Your task to perform on an android device: Show me popular videos on Youtube Image 0: 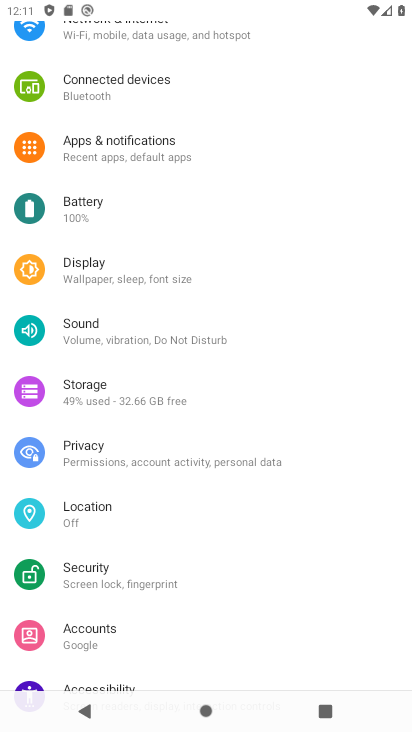
Step 0: press home button
Your task to perform on an android device: Show me popular videos on Youtube Image 1: 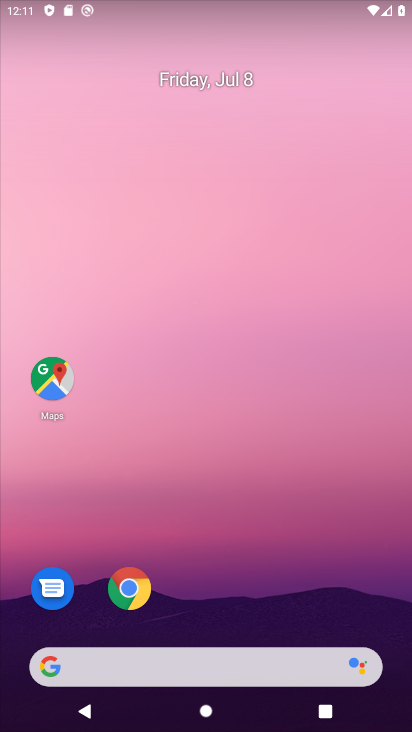
Step 1: drag from (262, 583) to (208, 135)
Your task to perform on an android device: Show me popular videos on Youtube Image 2: 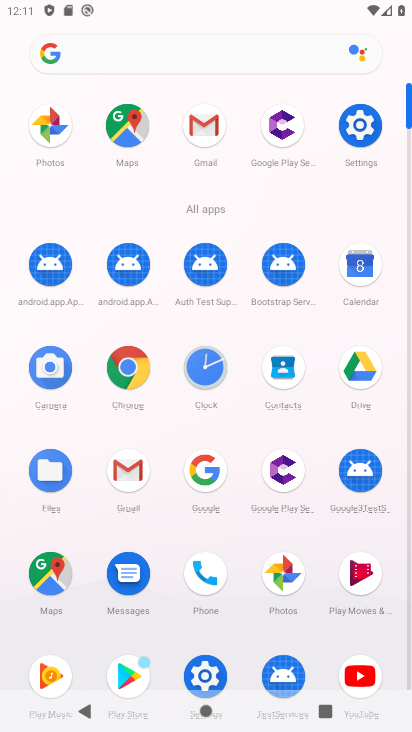
Step 2: click (365, 668)
Your task to perform on an android device: Show me popular videos on Youtube Image 3: 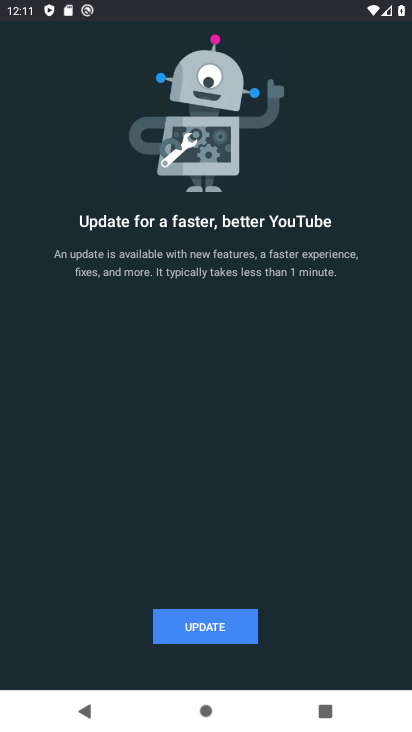
Step 3: click (221, 619)
Your task to perform on an android device: Show me popular videos on Youtube Image 4: 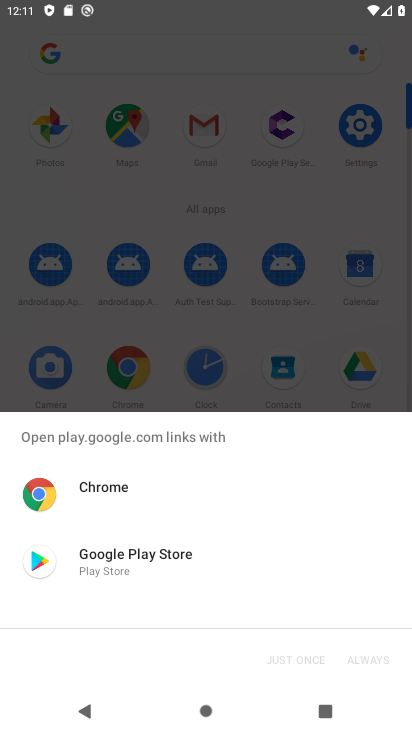
Step 4: click (58, 558)
Your task to perform on an android device: Show me popular videos on Youtube Image 5: 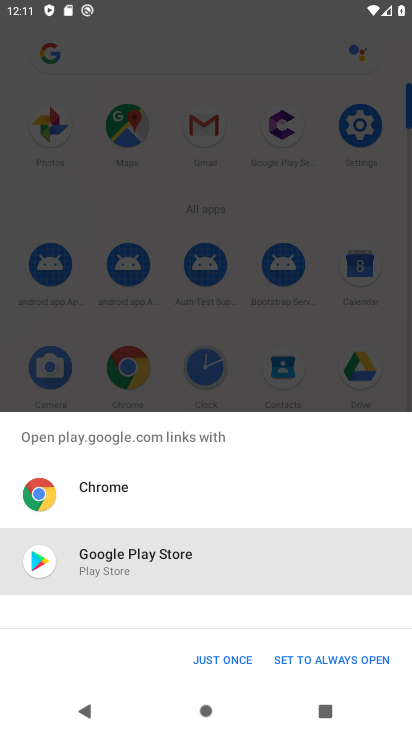
Step 5: click (226, 655)
Your task to perform on an android device: Show me popular videos on Youtube Image 6: 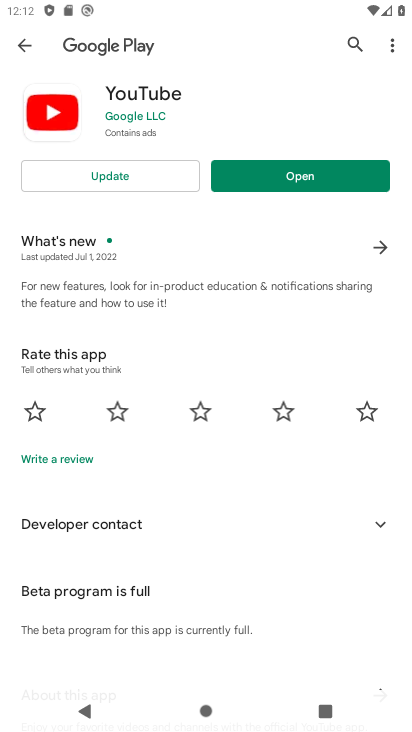
Step 6: click (130, 170)
Your task to perform on an android device: Show me popular videos on Youtube Image 7: 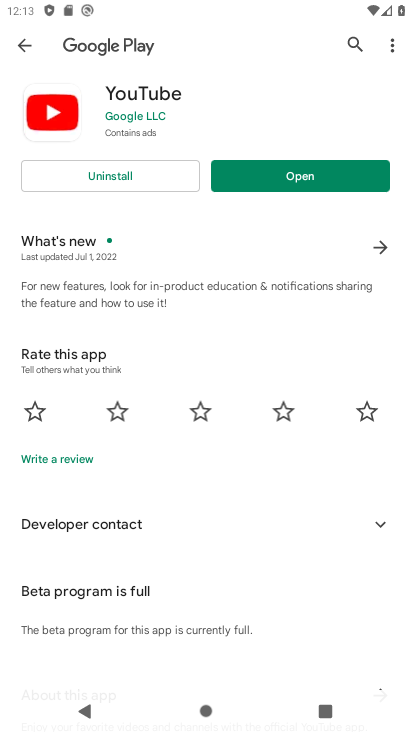
Step 7: click (299, 175)
Your task to perform on an android device: Show me popular videos on Youtube Image 8: 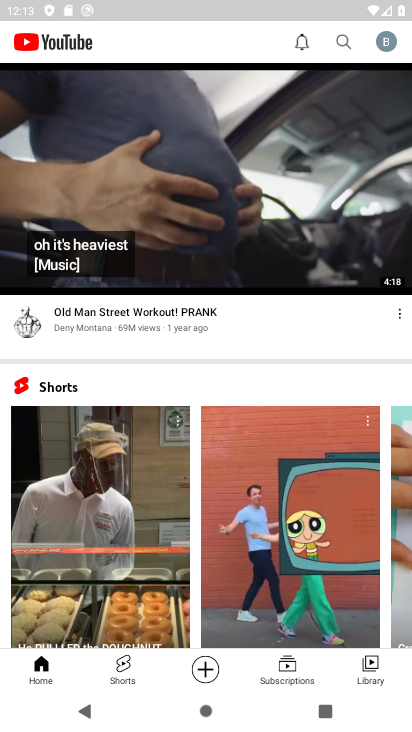
Step 8: drag from (253, 332) to (260, 616)
Your task to perform on an android device: Show me popular videos on Youtube Image 9: 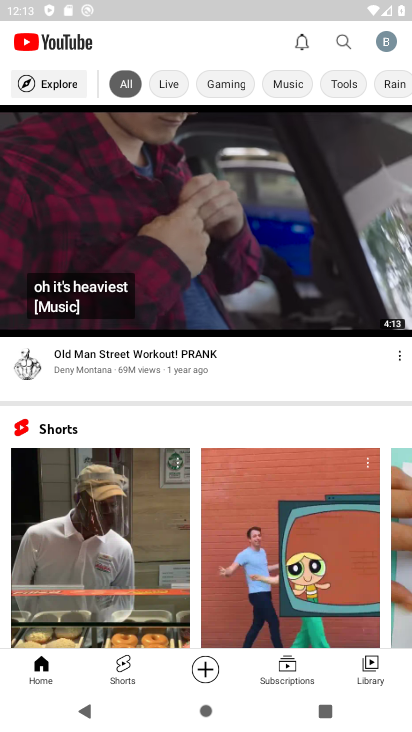
Step 9: click (50, 87)
Your task to perform on an android device: Show me popular videos on Youtube Image 10: 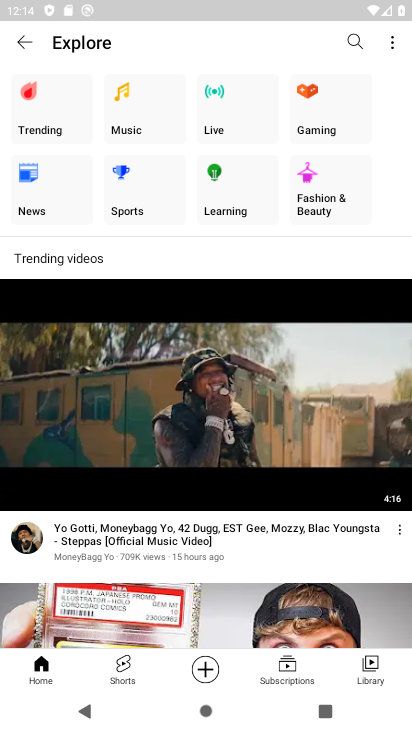
Step 10: click (41, 100)
Your task to perform on an android device: Show me popular videos on Youtube Image 11: 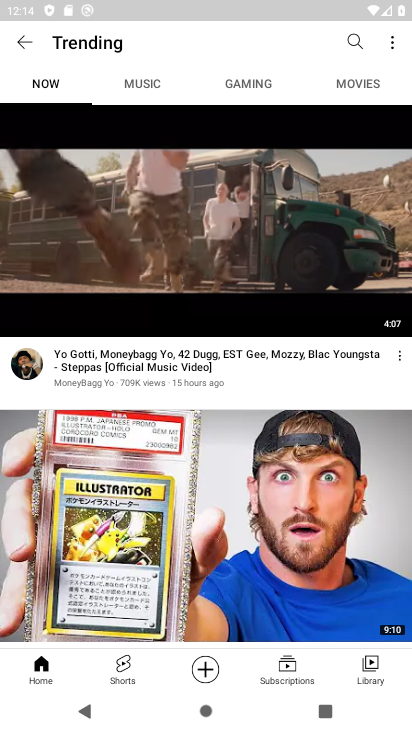
Step 11: task complete